Your task to perform on an android device: toggle notification dots Image 0: 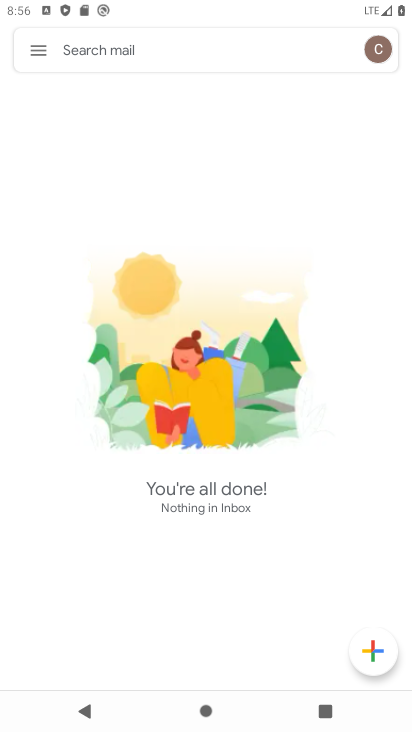
Step 0: press home button
Your task to perform on an android device: toggle notification dots Image 1: 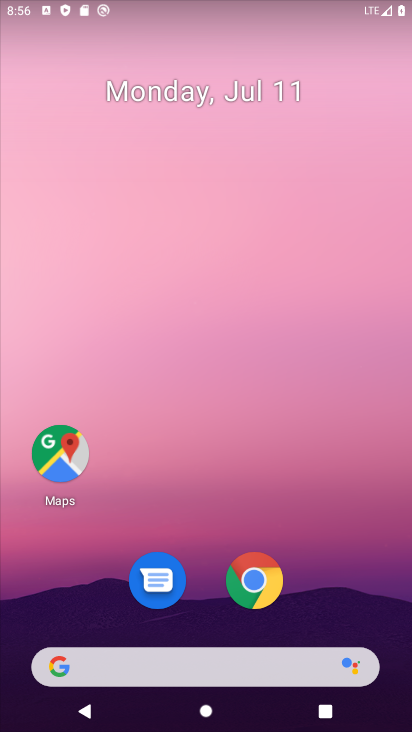
Step 1: drag from (203, 510) to (209, 31)
Your task to perform on an android device: toggle notification dots Image 2: 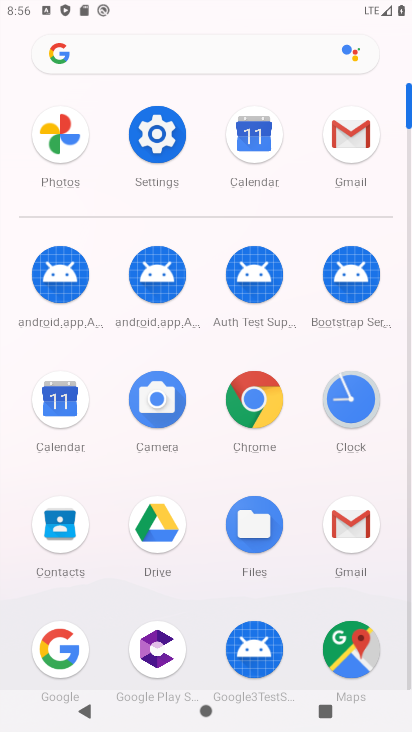
Step 2: click (156, 140)
Your task to perform on an android device: toggle notification dots Image 3: 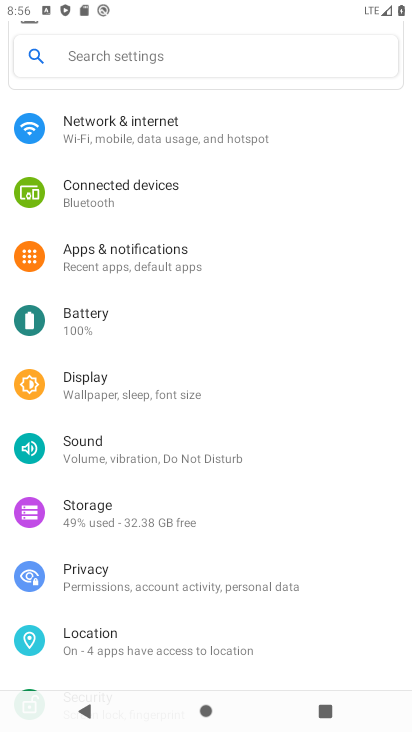
Step 3: click (190, 262)
Your task to perform on an android device: toggle notification dots Image 4: 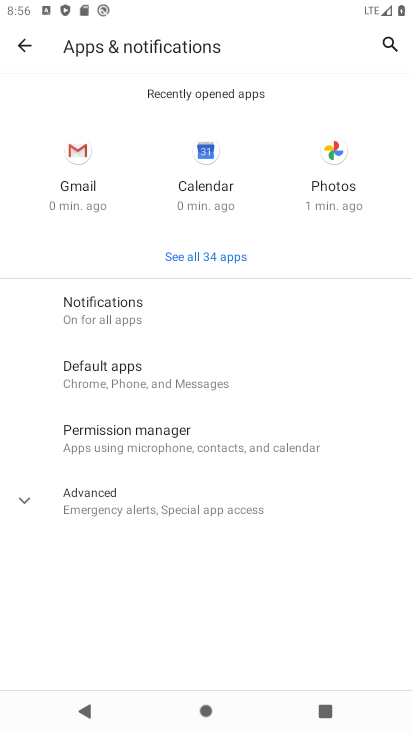
Step 4: click (110, 309)
Your task to perform on an android device: toggle notification dots Image 5: 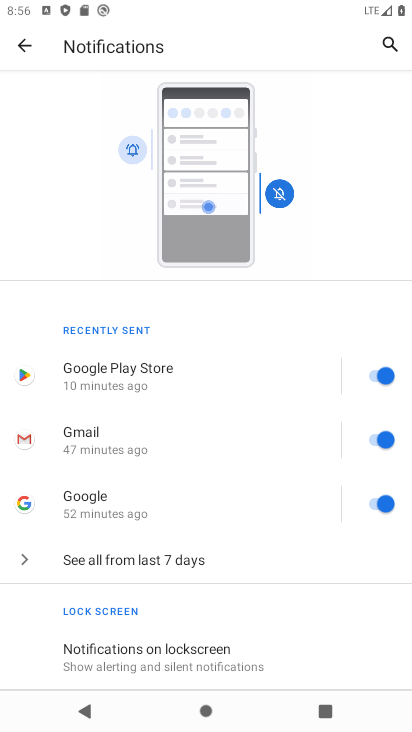
Step 5: drag from (214, 502) to (182, 197)
Your task to perform on an android device: toggle notification dots Image 6: 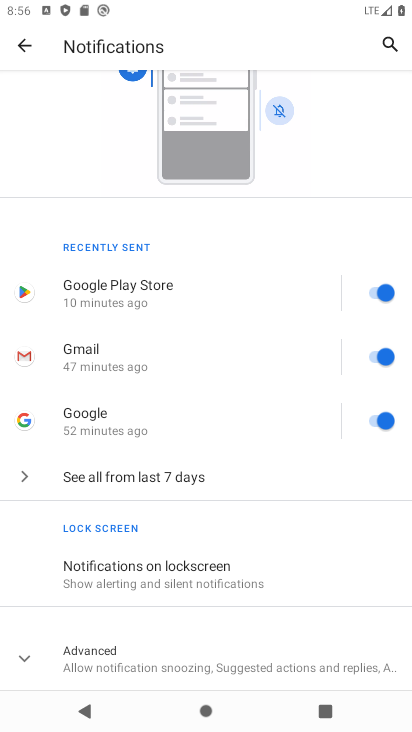
Step 6: click (20, 656)
Your task to perform on an android device: toggle notification dots Image 7: 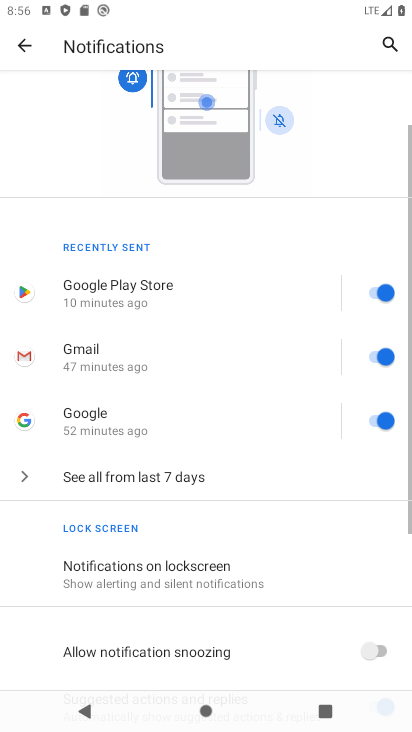
Step 7: drag from (192, 519) to (232, 152)
Your task to perform on an android device: toggle notification dots Image 8: 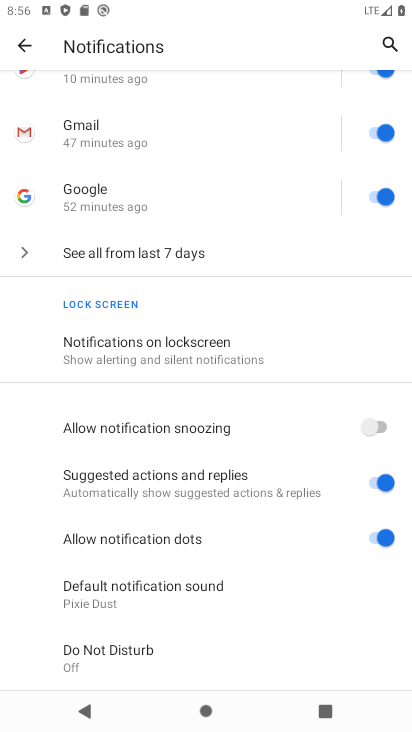
Step 8: click (382, 530)
Your task to perform on an android device: toggle notification dots Image 9: 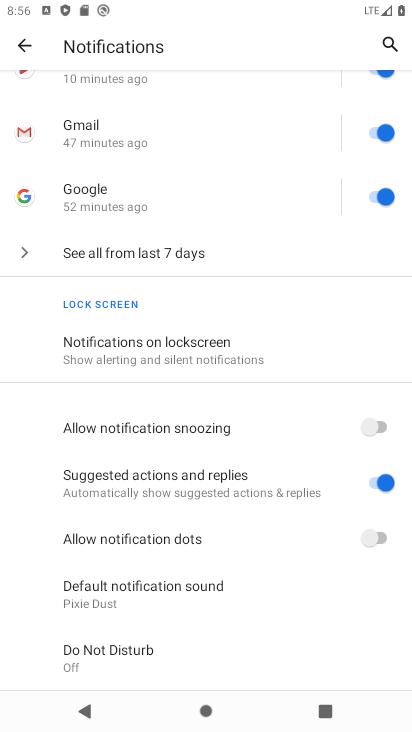
Step 9: task complete